Your task to perform on an android device: manage bookmarks in the chrome app Image 0: 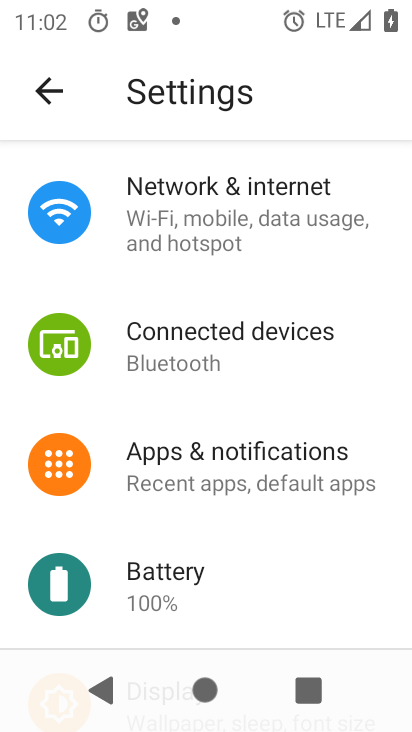
Step 0: press home button
Your task to perform on an android device: manage bookmarks in the chrome app Image 1: 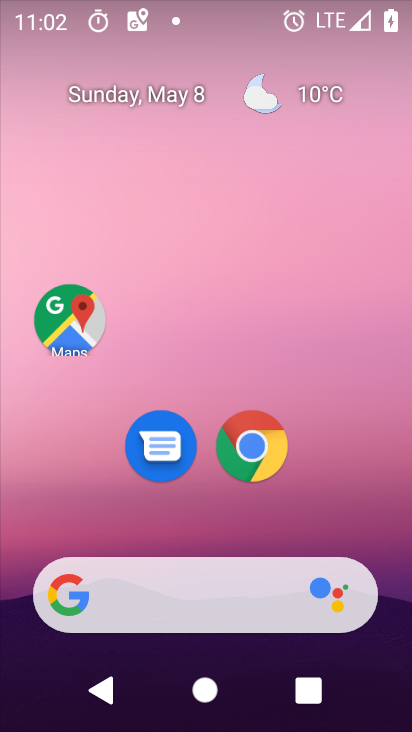
Step 1: click (246, 455)
Your task to perform on an android device: manage bookmarks in the chrome app Image 2: 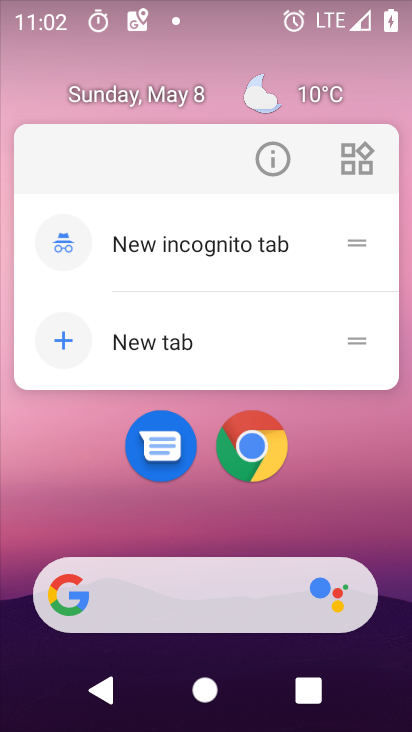
Step 2: click (258, 459)
Your task to perform on an android device: manage bookmarks in the chrome app Image 3: 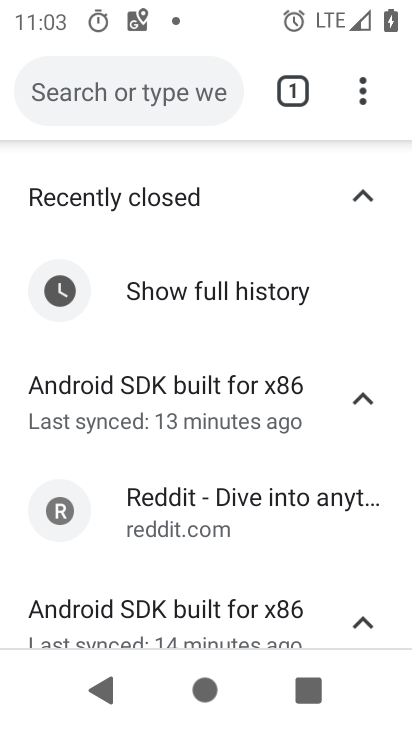
Step 3: drag from (362, 87) to (103, 336)
Your task to perform on an android device: manage bookmarks in the chrome app Image 4: 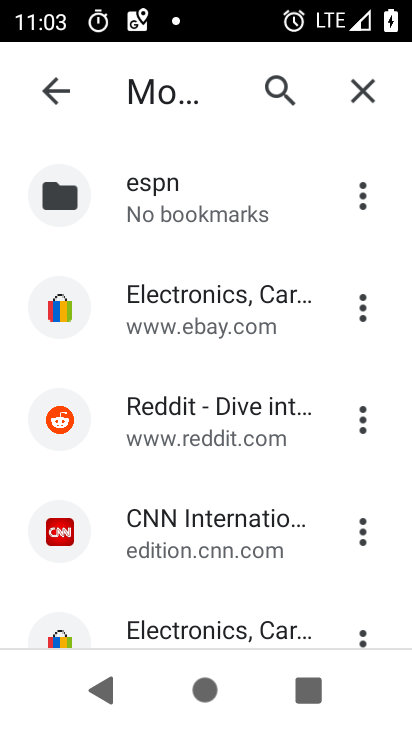
Step 4: drag from (240, 533) to (267, 285)
Your task to perform on an android device: manage bookmarks in the chrome app Image 5: 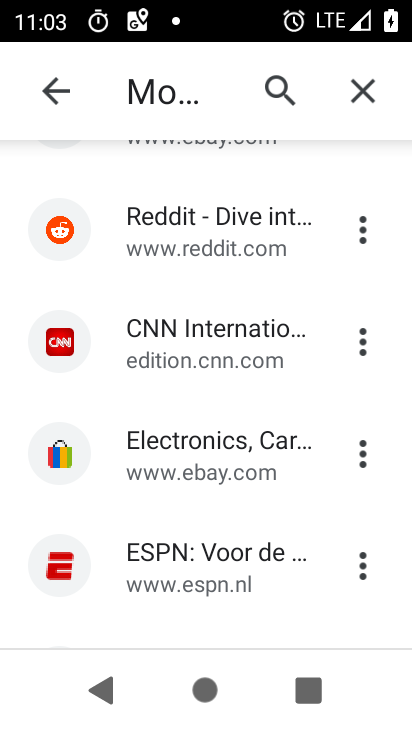
Step 5: drag from (220, 528) to (246, 300)
Your task to perform on an android device: manage bookmarks in the chrome app Image 6: 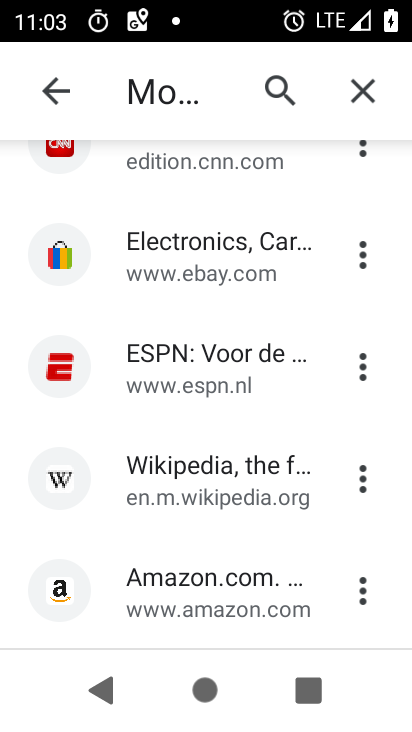
Step 6: drag from (227, 538) to (255, 314)
Your task to perform on an android device: manage bookmarks in the chrome app Image 7: 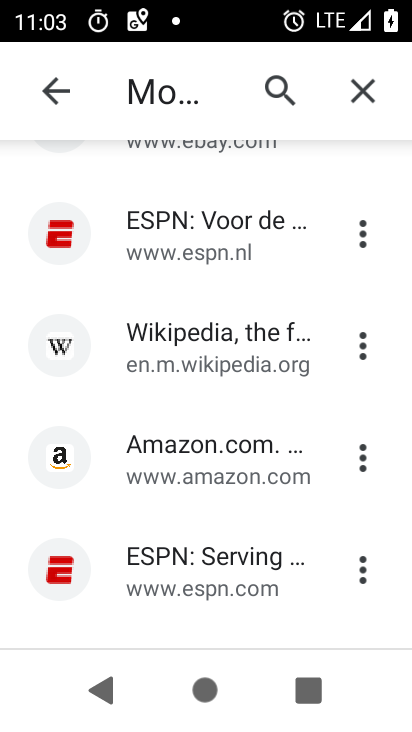
Step 7: click (361, 561)
Your task to perform on an android device: manage bookmarks in the chrome app Image 8: 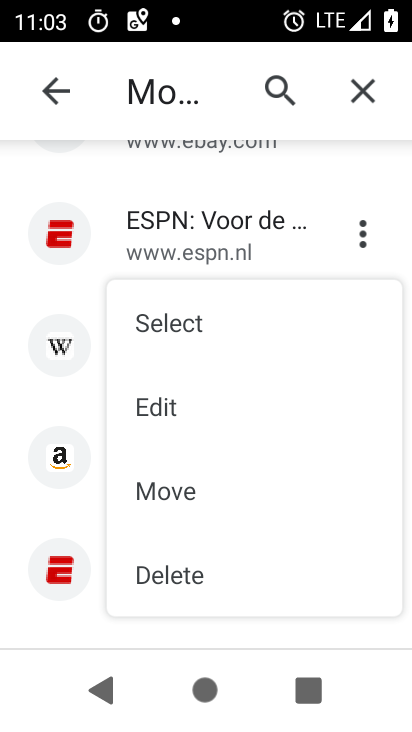
Step 8: click (161, 579)
Your task to perform on an android device: manage bookmarks in the chrome app Image 9: 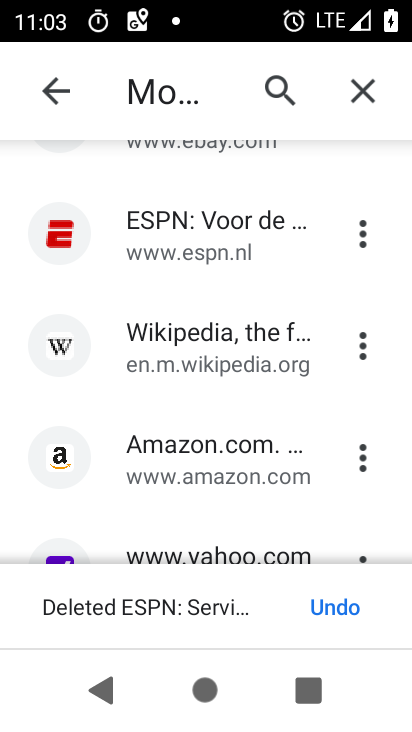
Step 9: task complete